Your task to perform on an android device: open app "eBay: The shopping marketplace" (install if not already installed), go to login, and select forgot password Image 0: 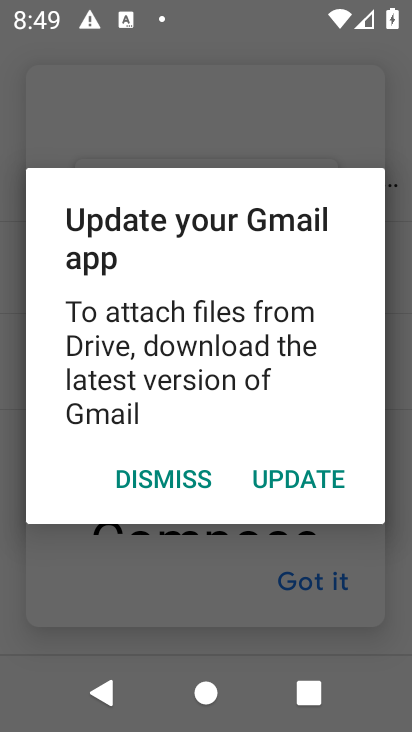
Step 0: press home button
Your task to perform on an android device: open app "eBay: The shopping marketplace" (install if not already installed), go to login, and select forgot password Image 1: 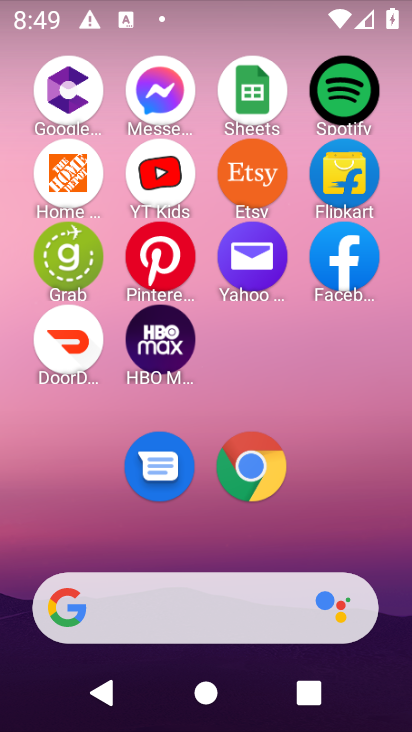
Step 1: drag from (166, 561) to (237, 27)
Your task to perform on an android device: open app "eBay: The shopping marketplace" (install if not already installed), go to login, and select forgot password Image 2: 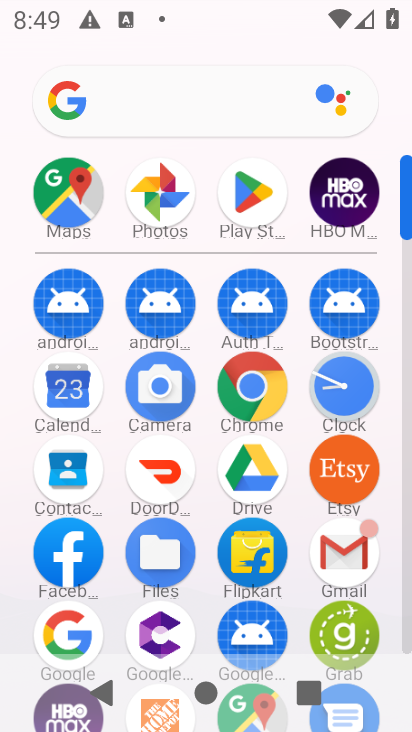
Step 2: click (253, 181)
Your task to perform on an android device: open app "eBay: The shopping marketplace" (install if not already installed), go to login, and select forgot password Image 3: 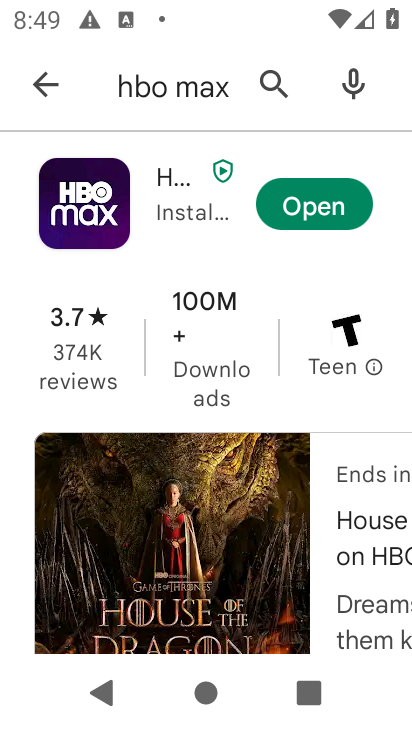
Step 3: click (268, 86)
Your task to perform on an android device: open app "eBay: The shopping marketplace" (install if not already installed), go to login, and select forgot password Image 4: 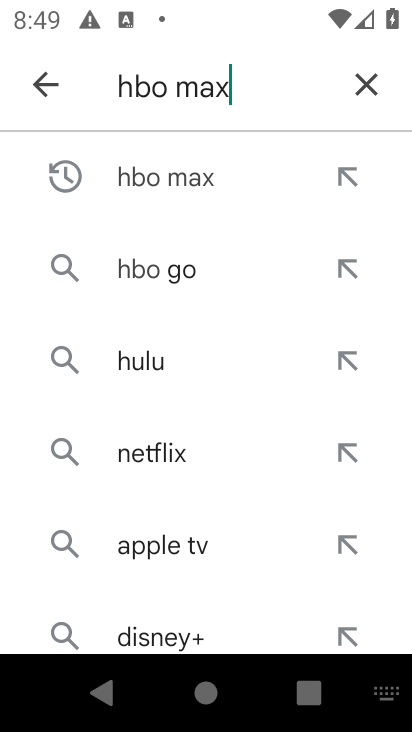
Step 4: click (369, 81)
Your task to perform on an android device: open app "eBay: The shopping marketplace" (install if not already installed), go to login, and select forgot password Image 5: 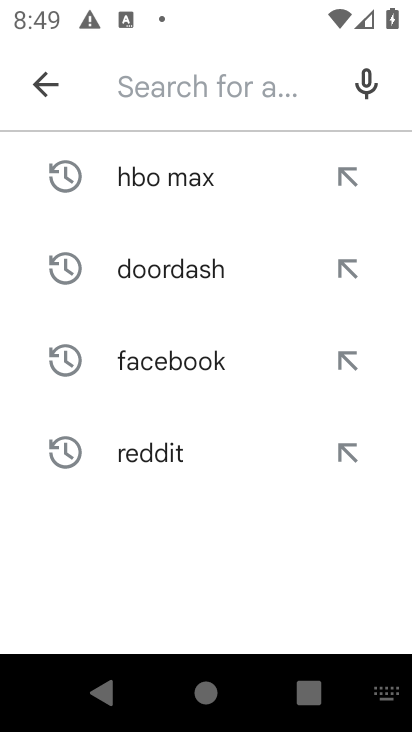
Step 5: type "ebay"
Your task to perform on an android device: open app "eBay: The shopping marketplace" (install if not already installed), go to login, and select forgot password Image 6: 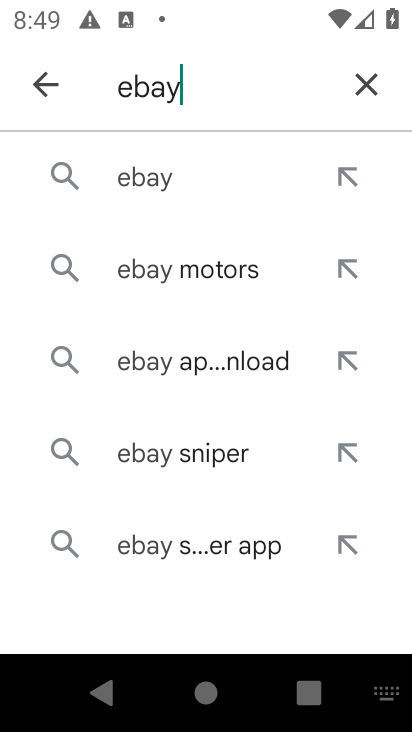
Step 6: click (140, 166)
Your task to perform on an android device: open app "eBay: The shopping marketplace" (install if not already installed), go to login, and select forgot password Image 7: 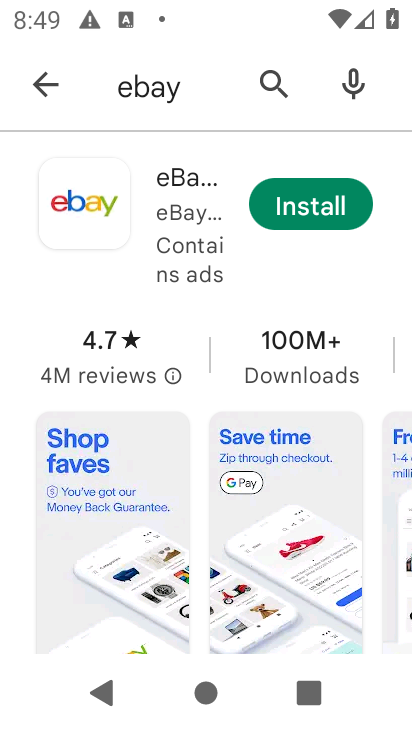
Step 7: click (318, 206)
Your task to perform on an android device: open app "eBay: The shopping marketplace" (install if not already installed), go to login, and select forgot password Image 8: 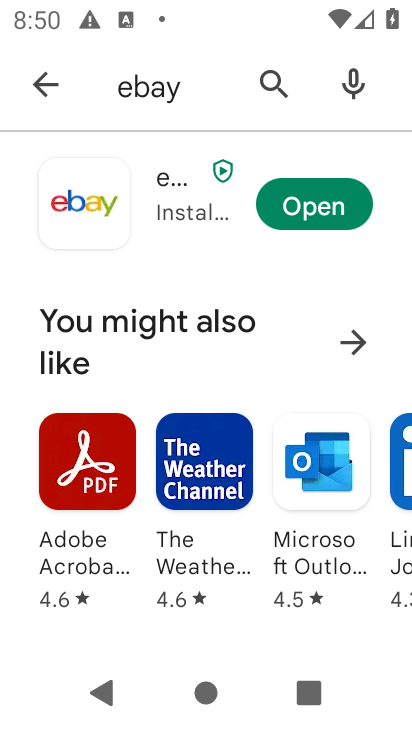
Step 8: press back button
Your task to perform on an android device: open app "eBay: The shopping marketplace" (install if not already installed), go to login, and select forgot password Image 9: 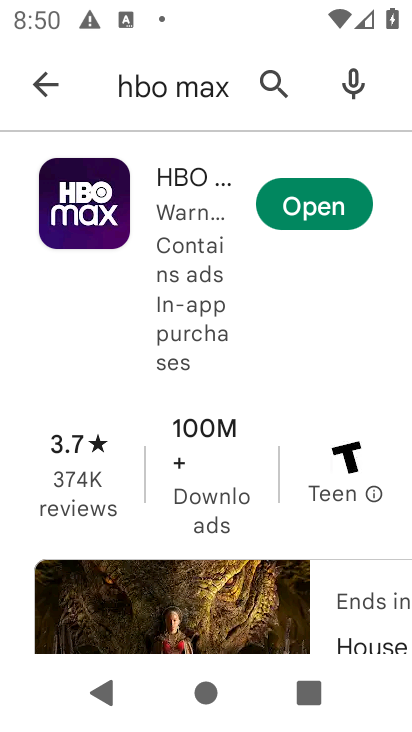
Step 9: click (268, 73)
Your task to perform on an android device: open app "eBay: The shopping marketplace" (install if not already installed), go to login, and select forgot password Image 10: 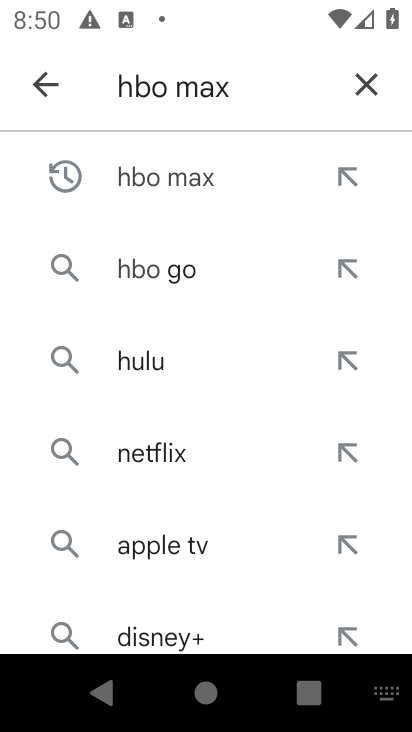
Step 10: click (362, 80)
Your task to perform on an android device: open app "eBay: The shopping marketplace" (install if not already installed), go to login, and select forgot password Image 11: 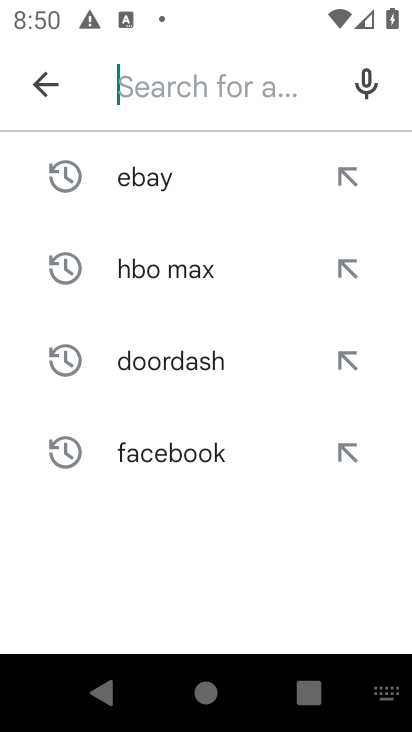
Step 11: click (150, 173)
Your task to perform on an android device: open app "eBay: The shopping marketplace" (install if not already installed), go to login, and select forgot password Image 12: 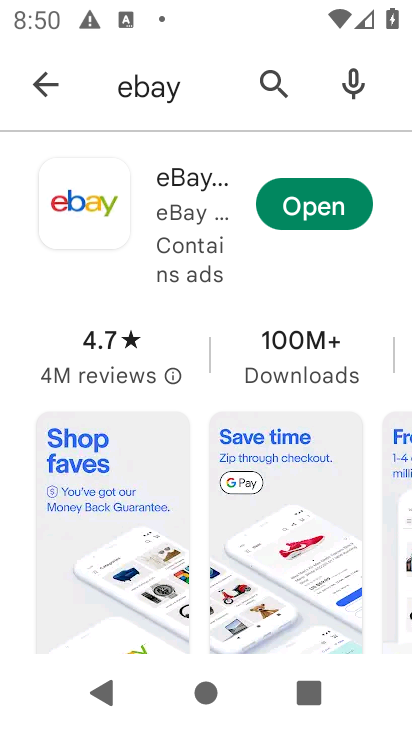
Step 12: click (298, 209)
Your task to perform on an android device: open app "eBay: The shopping marketplace" (install if not already installed), go to login, and select forgot password Image 13: 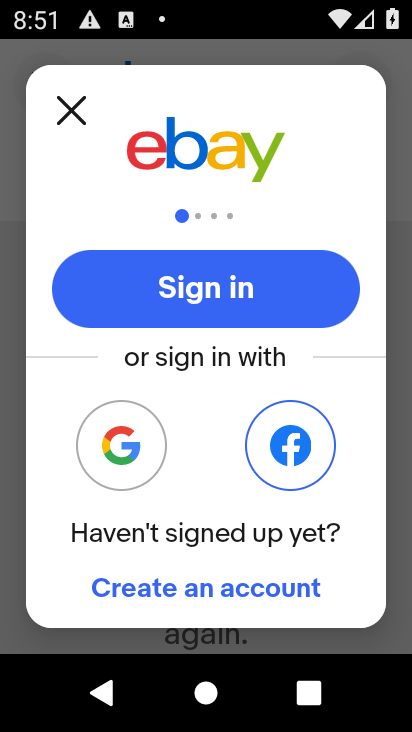
Step 13: click (198, 306)
Your task to perform on an android device: open app "eBay: The shopping marketplace" (install if not already installed), go to login, and select forgot password Image 14: 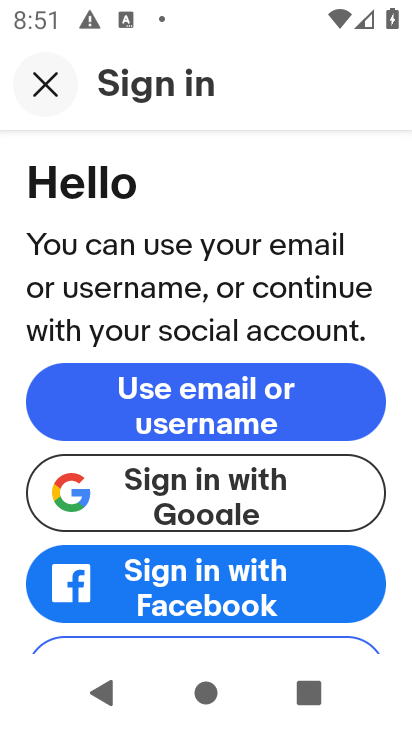
Step 14: drag from (153, 528) to (272, 105)
Your task to perform on an android device: open app "eBay: The shopping marketplace" (install if not already installed), go to login, and select forgot password Image 15: 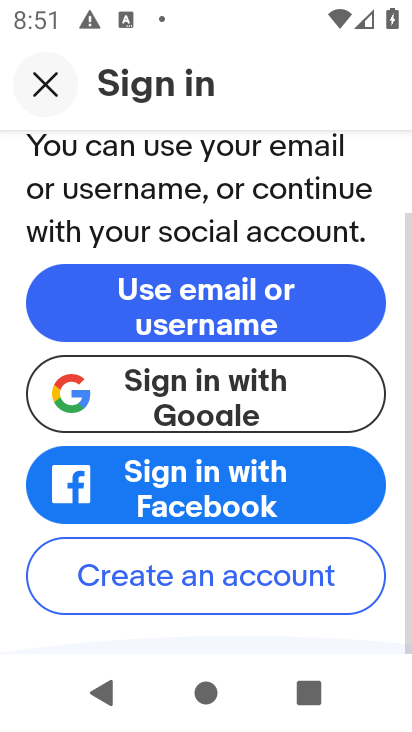
Step 15: click (159, 328)
Your task to perform on an android device: open app "eBay: The shopping marketplace" (install if not already installed), go to login, and select forgot password Image 16: 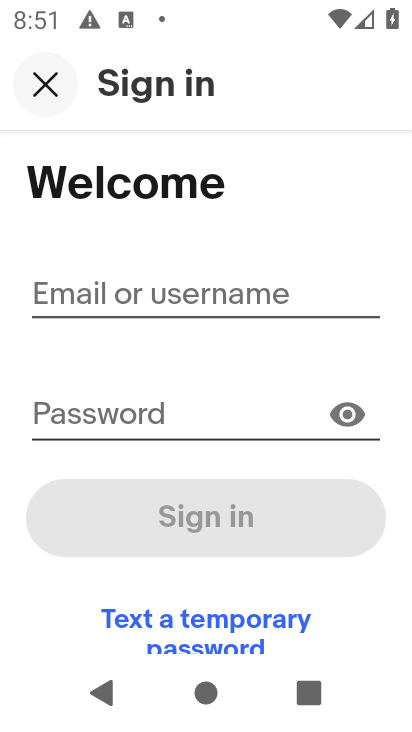
Step 16: drag from (207, 596) to (239, 166)
Your task to perform on an android device: open app "eBay: The shopping marketplace" (install if not already installed), go to login, and select forgot password Image 17: 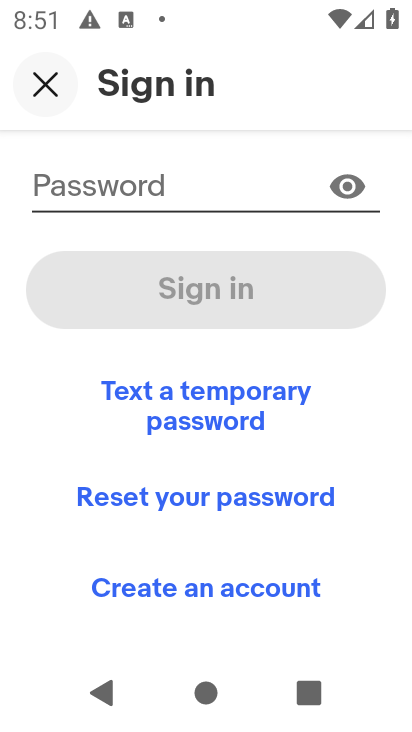
Step 17: click (262, 508)
Your task to perform on an android device: open app "eBay: The shopping marketplace" (install if not already installed), go to login, and select forgot password Image 18: 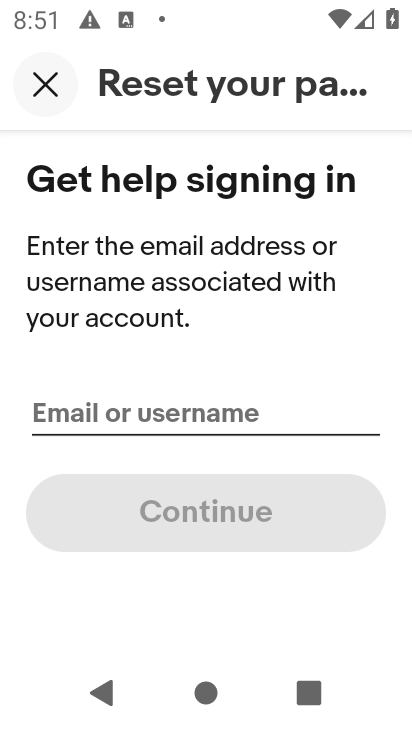
Step 18: task complete